Your task to perform on an android device: Open Youtube and go to the subscriptions tab Image 0: 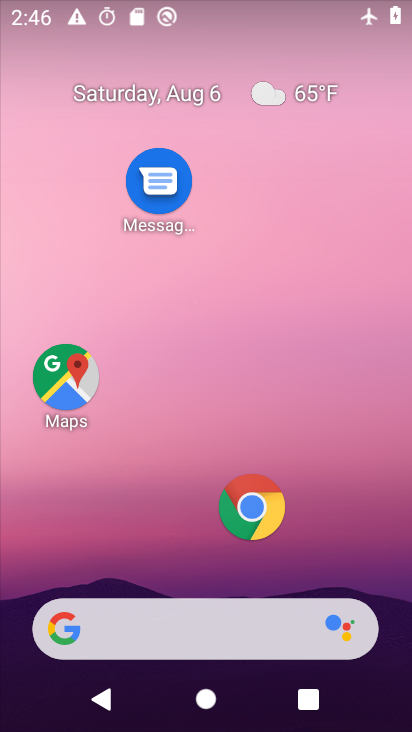
Step 0: drag from (172, 329) to (191, 201)
Your task to perform on an android device: Open Youtube and go to the subscriptions tab Image 1: 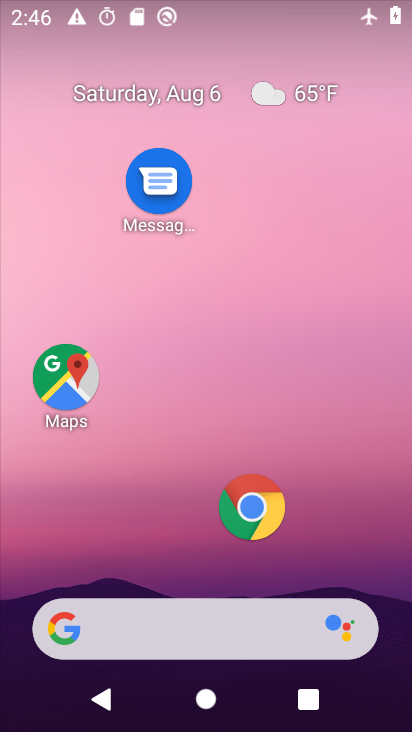
Step 1: drag from (184, 564) to (191, 292)
Your task to perform on an android device: Open Youtube and go to the subscriptions tab Image 2: 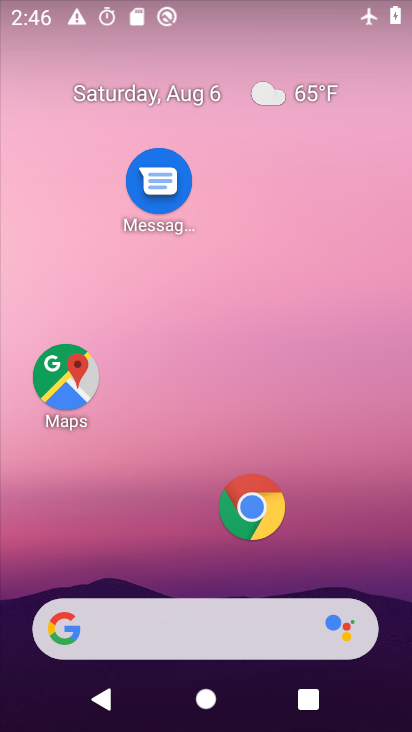
Step 2: drag from (163, 550) to (167, 191)
Your task to perform on an android device: Open Youtube and go to the subscriptions tab Image 3: 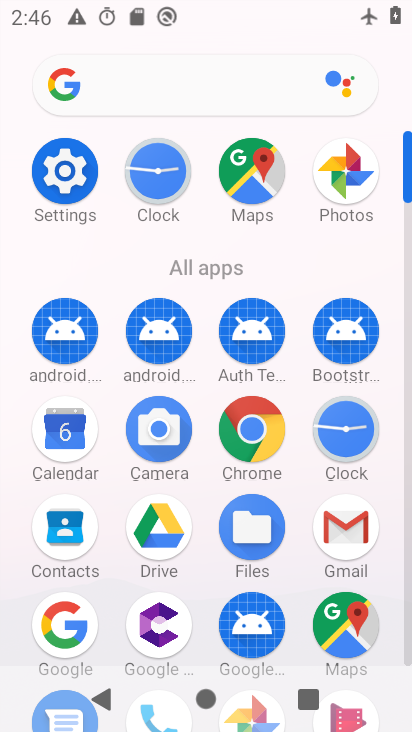
Step 3: drag from (203, 500) to (206, 112)
Your task to perform on an android device: Open Youtube and go to the subscriptions tab Image 4: 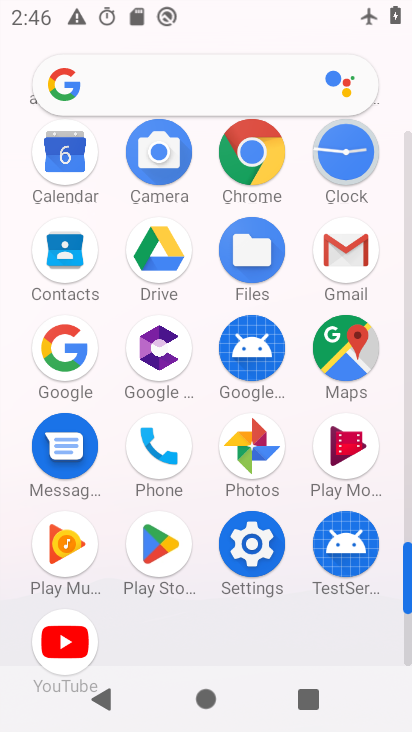
Step 4: click (80, 642)
Your task to perform on an android device: Open Youtube and go to the subscriptions tab Image 5: 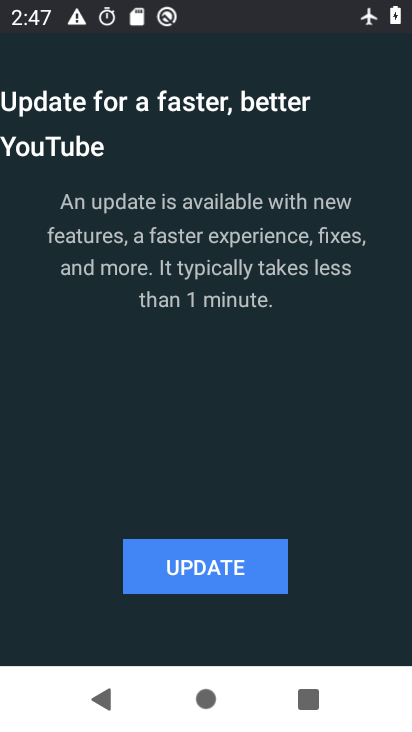
Step 5: click (201, 564)
Your task to perform on an android device: Open Youtube and go to the subscriptions tab Image 6: 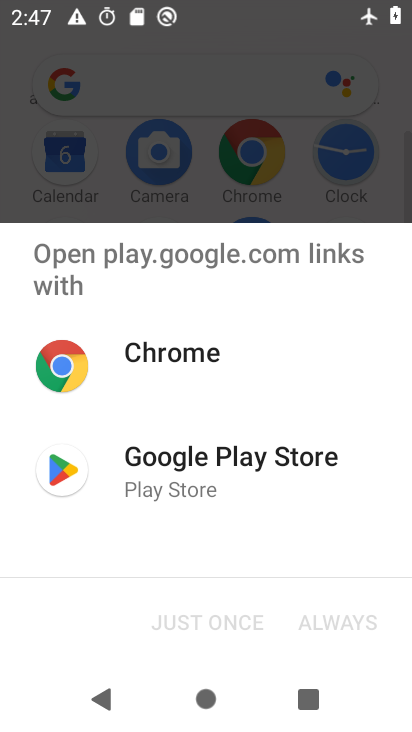
Step 6: click (176, 501)
Your task to perform on an android device: Open Youtube and go to the subscriptions tab Image 7: 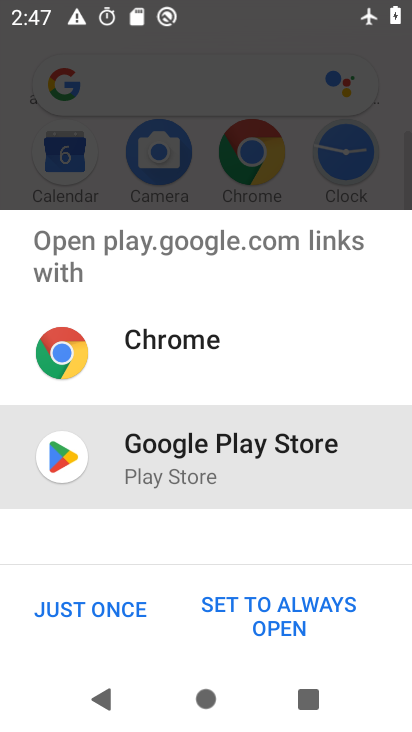
Step 7: click (104, 611)
Your task to perform on an android device: Open Youtube and go to the subscriptions tab Image 8: 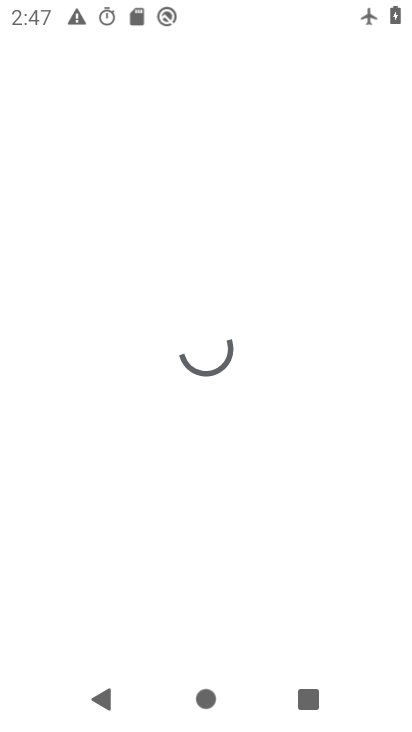
Step 8: press back button
Your task to perform on an android device: Open Youtube and go to the subscriptions tab Image 9: 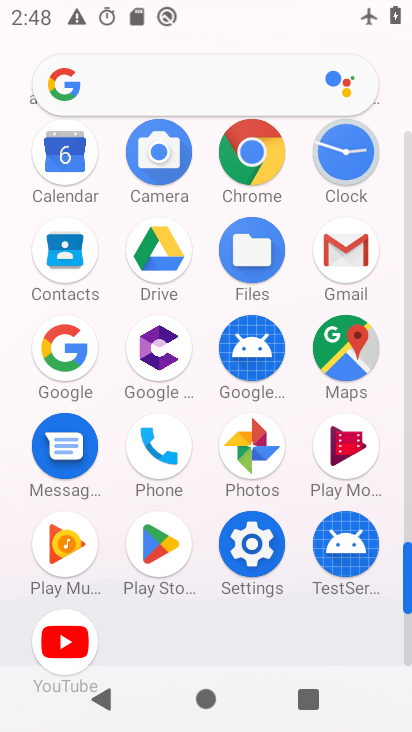
Step 9: click (63, 635)
Your task to perform on an android device: Open Youtube and go to the subscriptions tab Image 10: 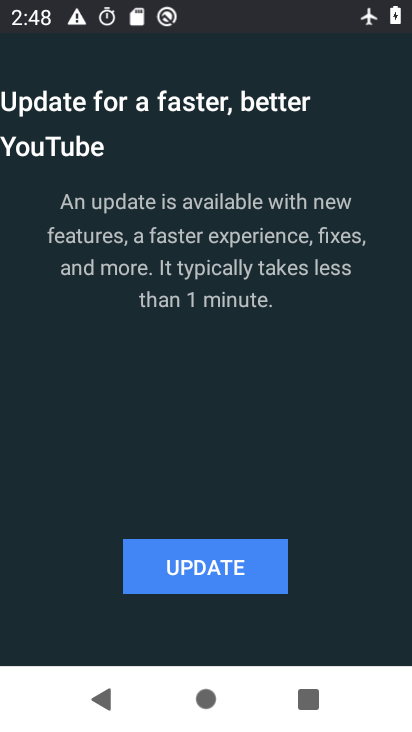
Step 10: click (233, 571)
Your task to perform on an android device: Open Youtube and go to the subscriptions tab Image 11: 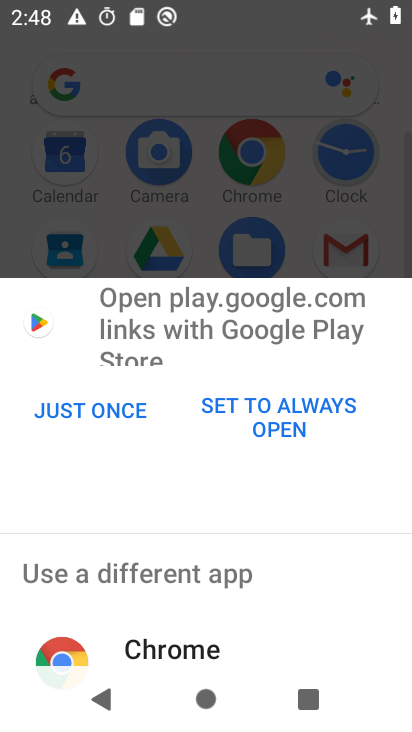
Step 11: click (86, 406)
Your task to perform on an android device: Open Youtube and go to the subscriptions tab Image 12: 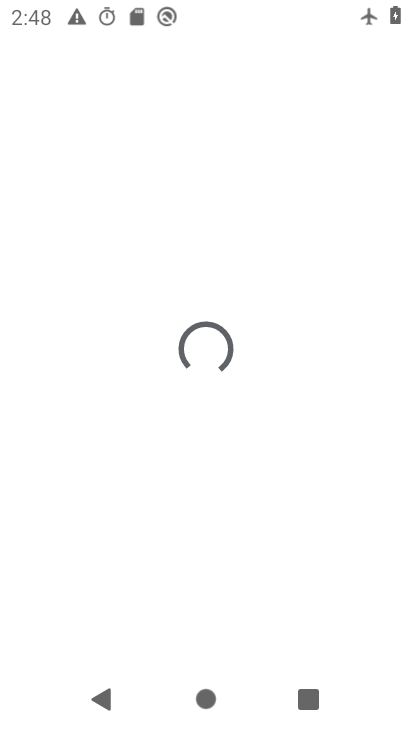
Step 12: task complete